Your task to perform on an android device: turn off smart reply in the gmail app Image 0: 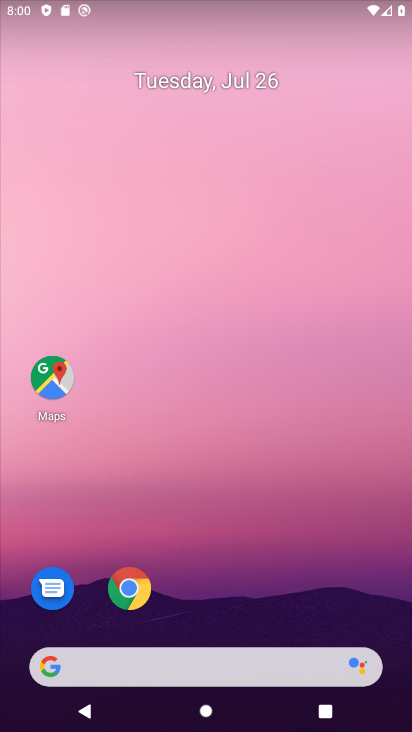
Step 0: drag from (342, 576) to (209, 0)
Your task to perform on an android device: turn off smart reply in the gmail app Image 1: 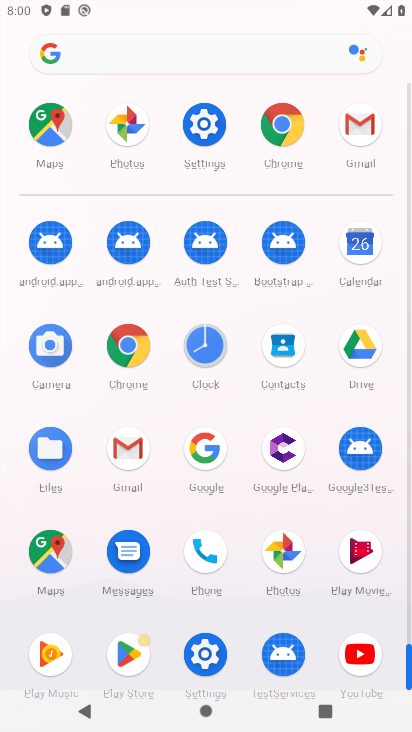
Step 1: click (366, 128)
Your task to perform on an android device: turn off smart reply in the gmail app Image 2: 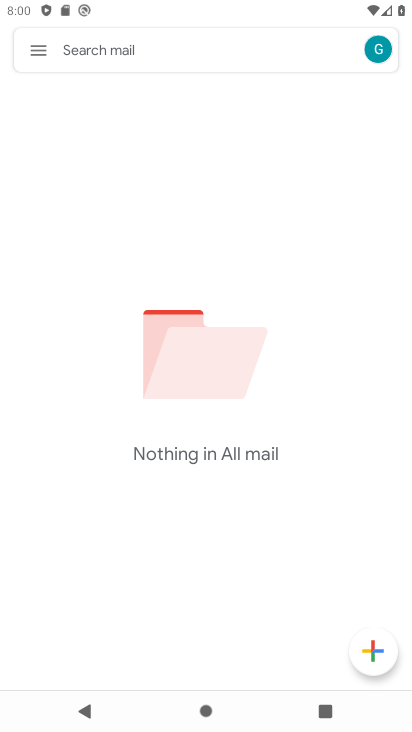
Step 2: click (41, 45)
Your task to perform on an android device: turn off smart reply in the gmail app Image 3: 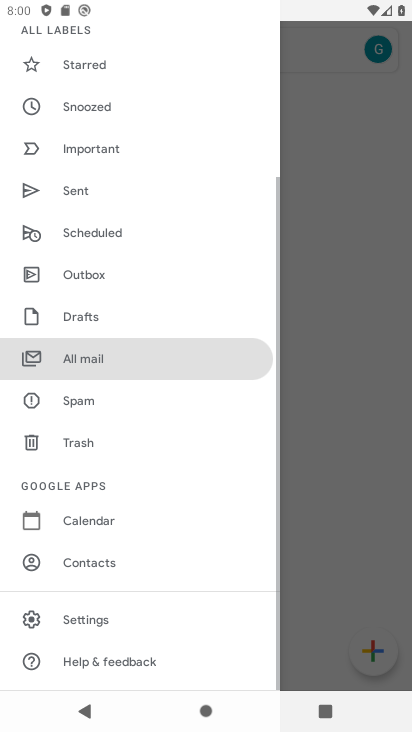
Step 3: click (115, 618)
Your task to perform on an android device: turn off smart reply in the gmail app Image 4: 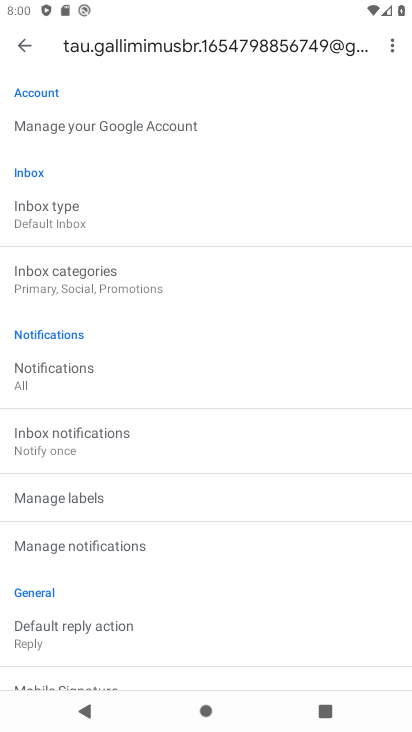
Step 4: drag from (296, 591) to (288, 117)
Your task to perform on an android device: turn off smart reply in the gmail app Image 5: 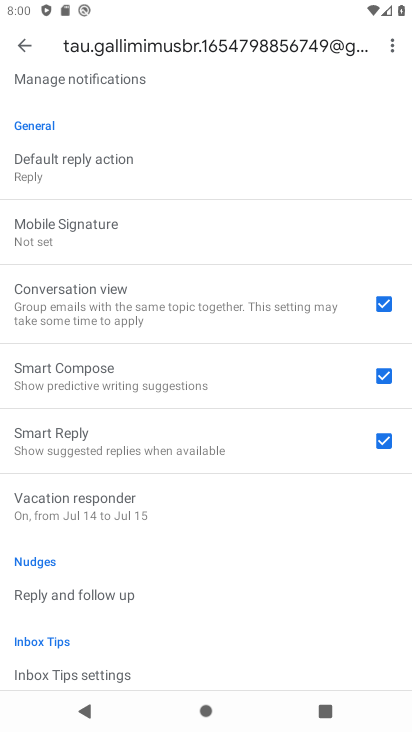
Step 5: click (385, 444)
Your task to perform on an android device: turn off smart reply in the gmail app Image 6: 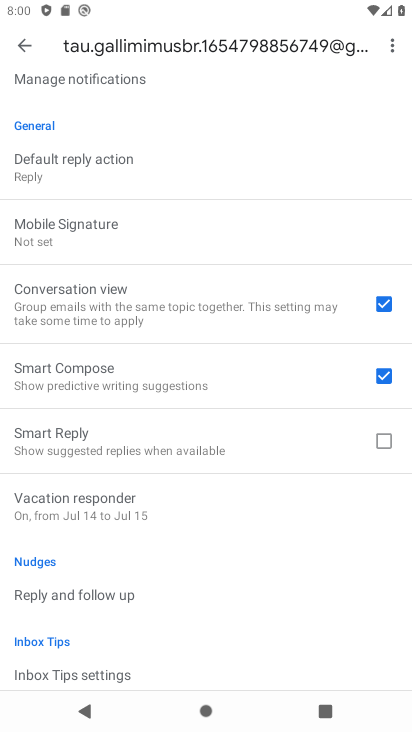
Step 6: task complete